Your task to perform on an android device: Go to calendar. Show me events next week Image 0: 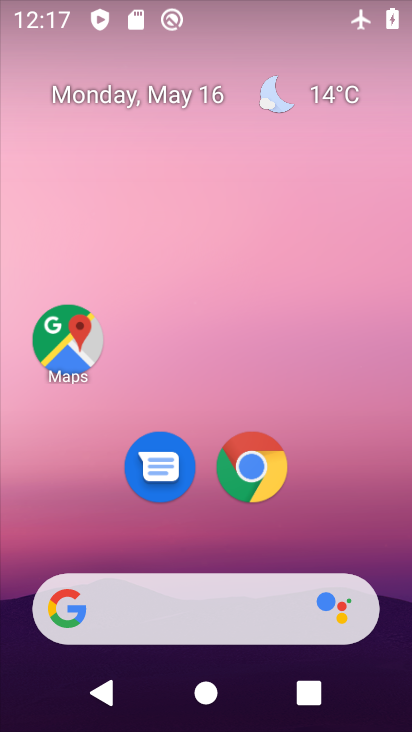
Step 0: drag from (327, 466) to (346, 218)
Your task to perform on an android device: Go to calendar. Show me events next week Image 1: 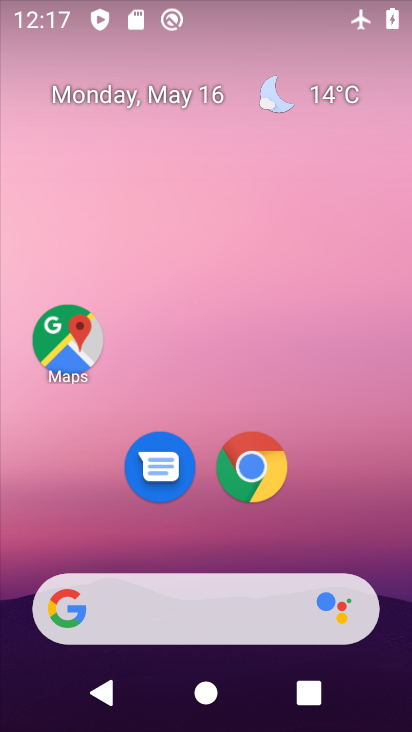
Step 1: drag from (334, 549) to (346, 85)
Your task to perform on an android device: Go to calendar. Show me events next week Image 2: 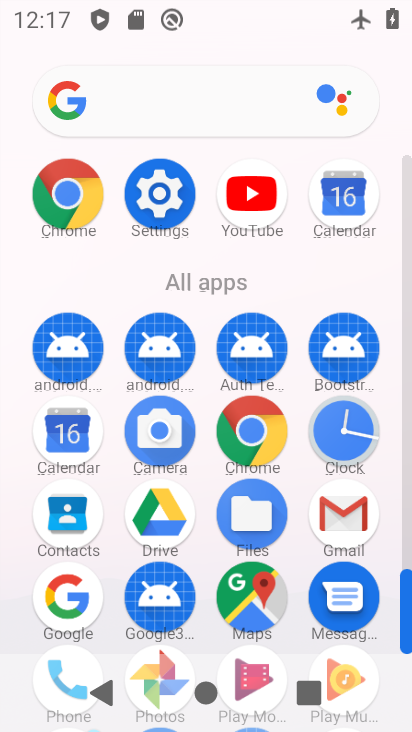
Step 2: click (83, 431)
Your task to perform on an android device: Go to calendar. Show me events next week Image 3: 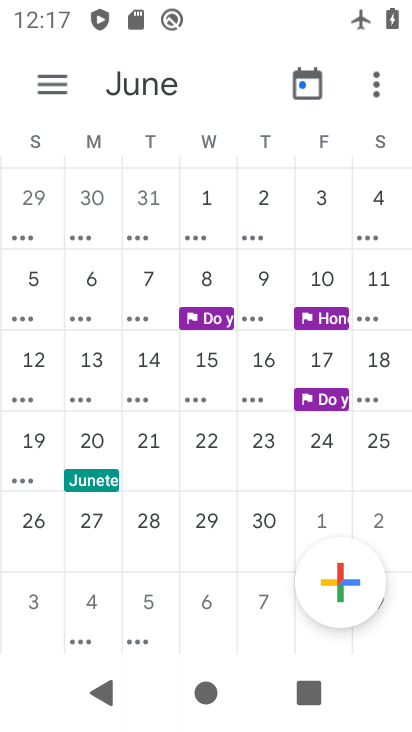
Step 3: task complete